Your task to perform on an android device: uninstall "Walmart Shopping & Grocery" Image 0: 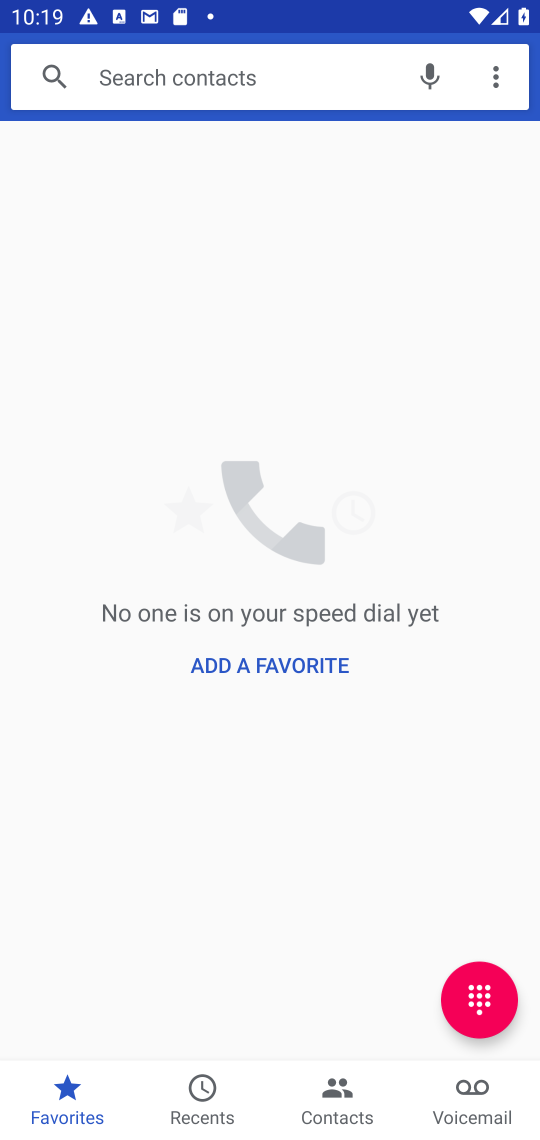
Step 0: press home button
Your task to perform on an android device: uninstall "Walmart Shopping & Grocery" Image 1: 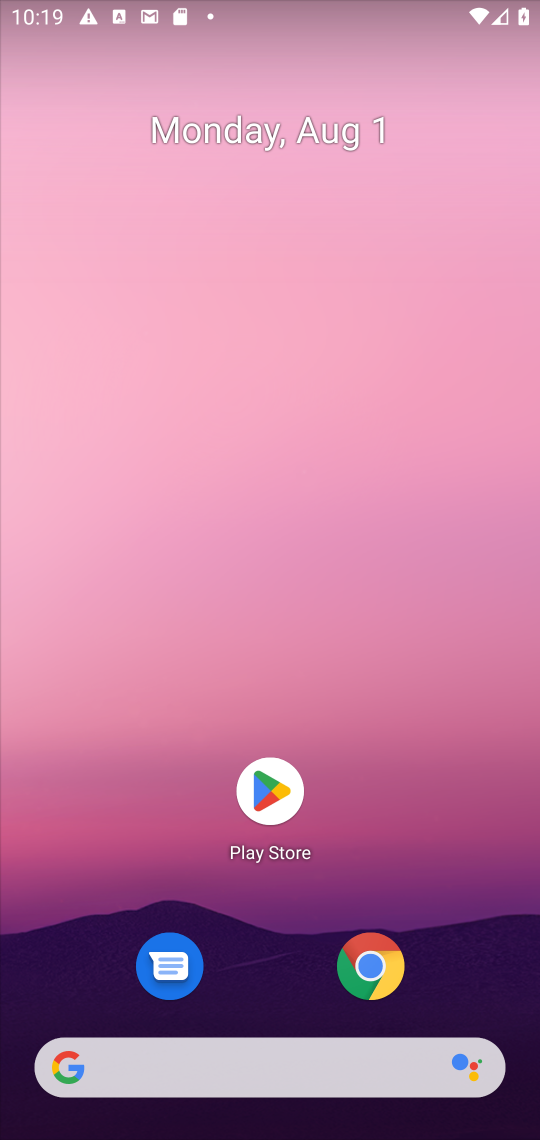
Step 1: drag from (521, 1041) to (374, 32)
Your task to perform on an android device: uninstall "Walmart Shopping & Grocery" Image 2: 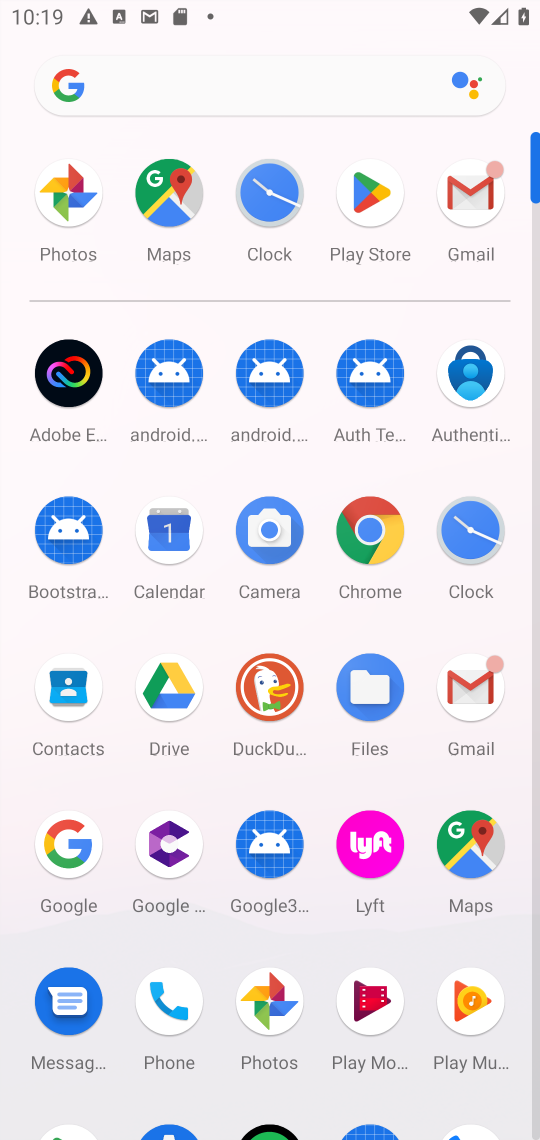
Step 2: drag from (312, 1085) to (300, 436)
Your task to perform on an android device: uninstall "Walmart Shopping & Grocery" Image 3: 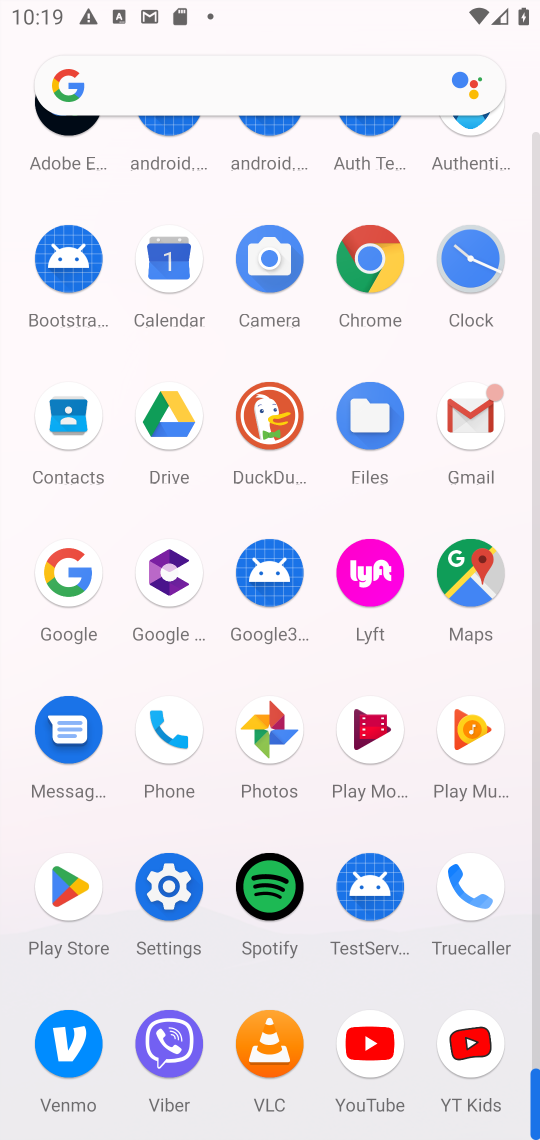
Step 3: drag from (252, 376) to (301, 759)
Your task to perform on an android device: uninstall "Walmart Shopping & Grocery" Image 4: 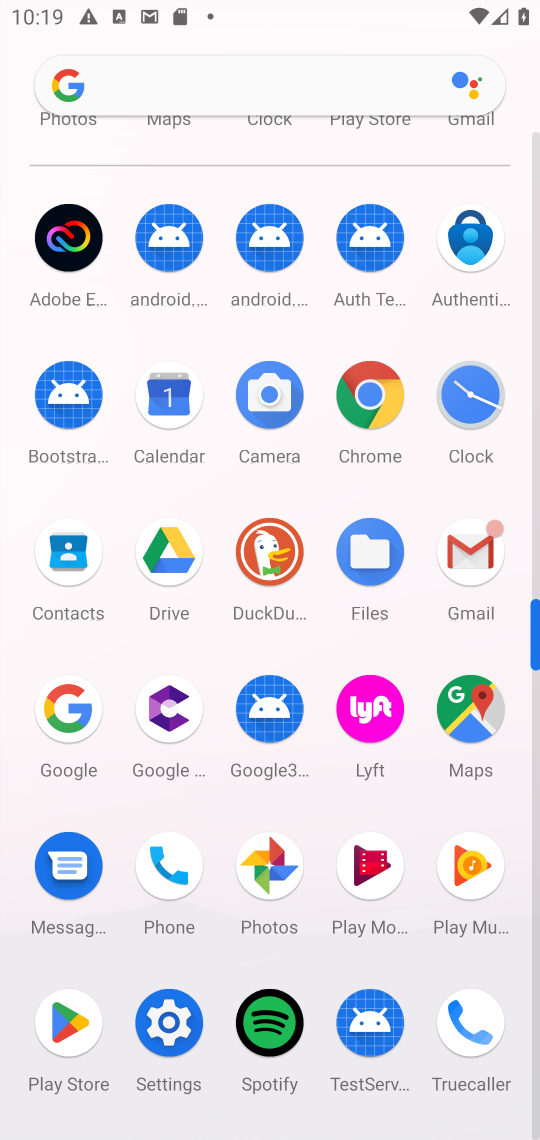
Step 4: click (91, 1021)
Your task to perform on an android device: uninstall "Walmart Shopping & Grocery" Image 5: 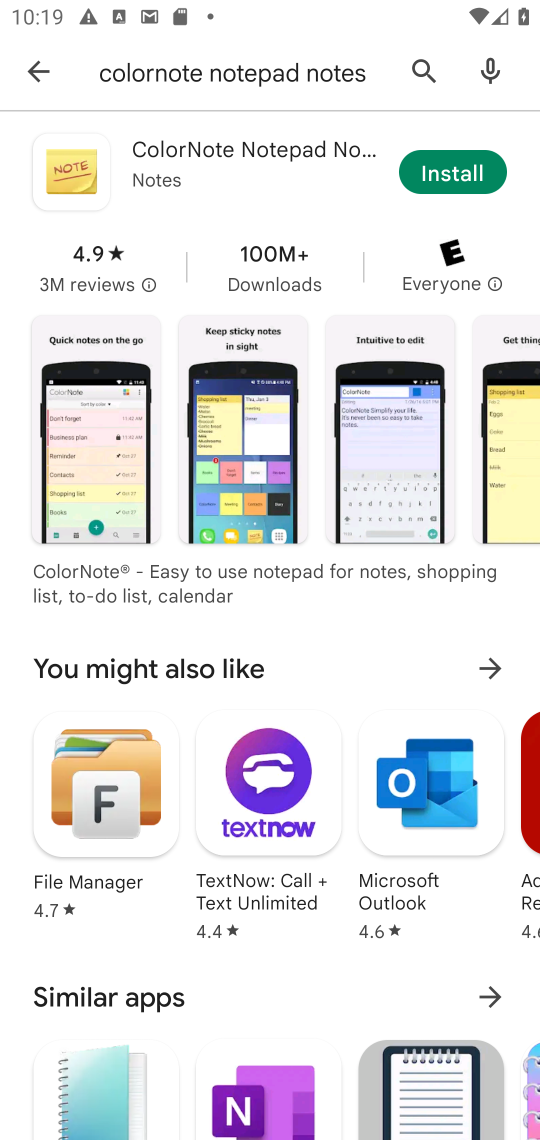
Step 5: click (432, 68)
Your task to perform on an android device: uninstall "Walmart Shopping & Grocery" Image 6: 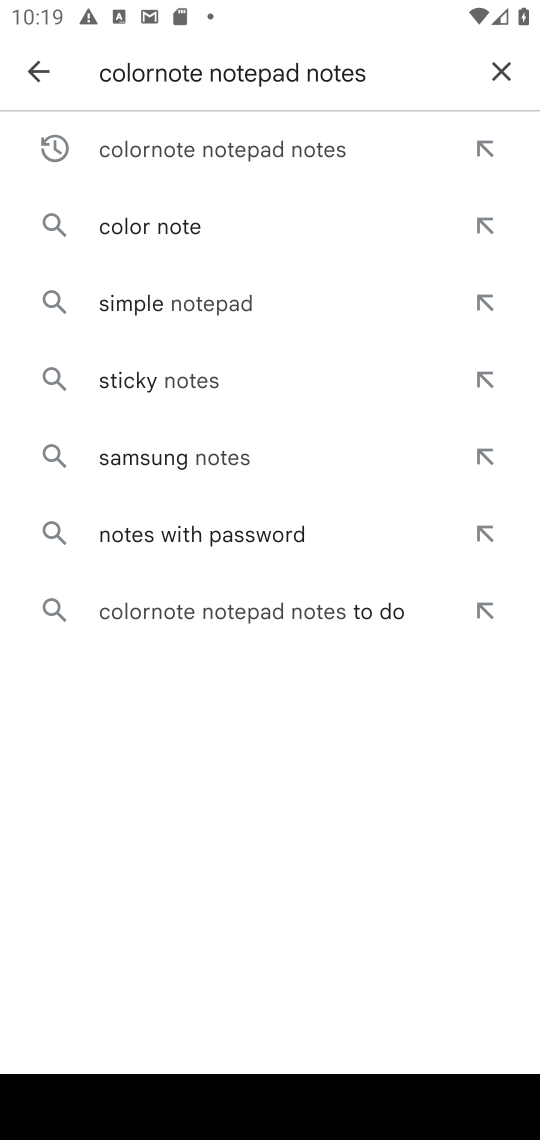
Step 6: click (506, 68)
Your task to perform on an android device: uninstall "Walmart Shopping & Grocery" Image 7: 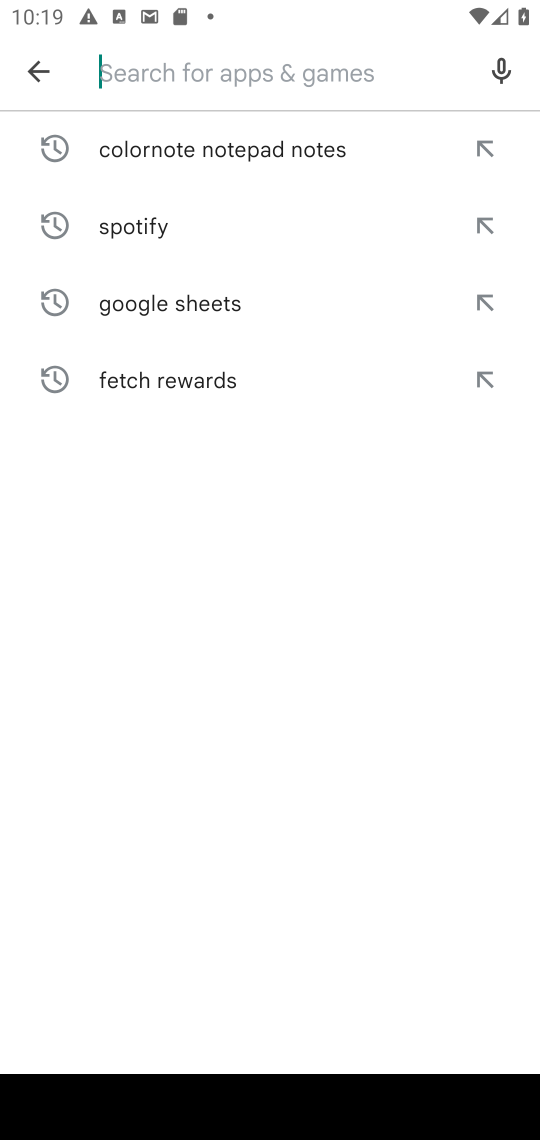
Step 7: type "Walmart Shopping & Grocery"
Your task to perform on an android device: uninstall "Walmart Shopping & Grocery" Image 8: 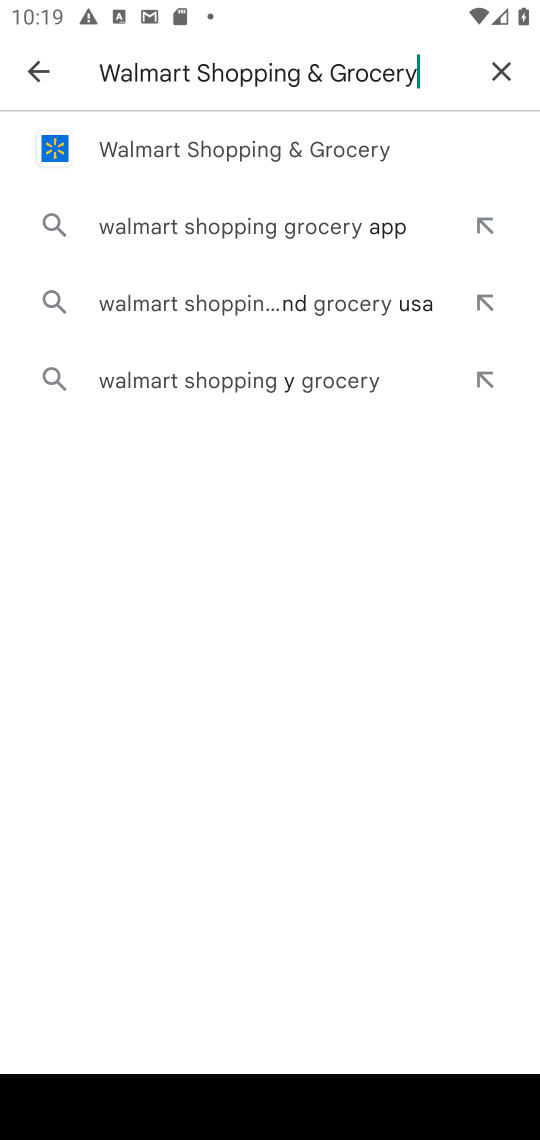
Step 8: click (51, 145)
Your task to perform on an android device: uninstall "Walmart Shopping & Grocery" Image 9: 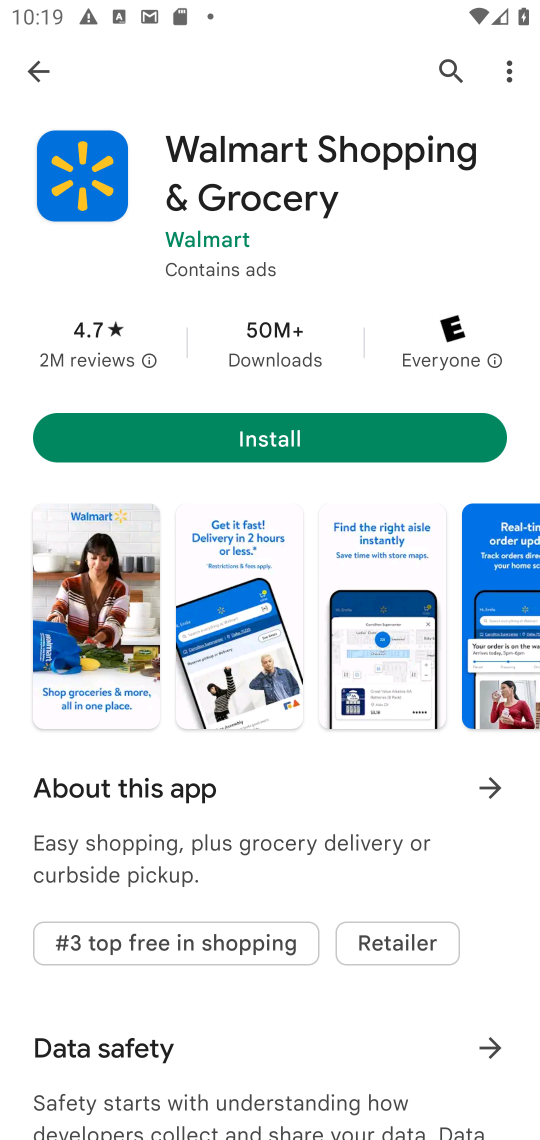
Step 9: task complete